Your task to perform on an android device: Open Google Maps and go to "Timeline" Image 0: 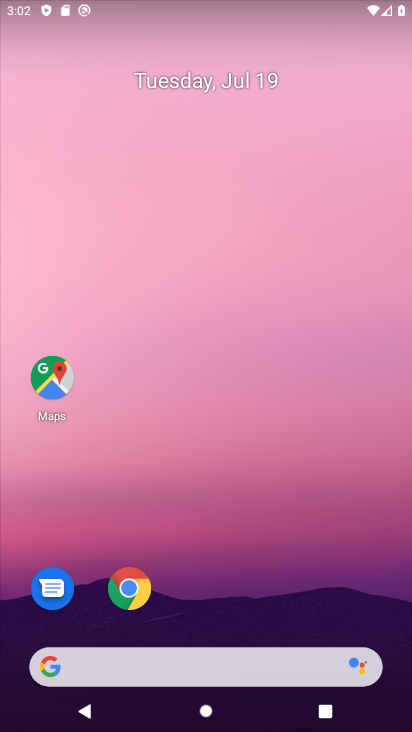
Step 0: click (66, 390)
Your task to perform on an android device: Open Google Maps and go to "Timeline" Image 1: 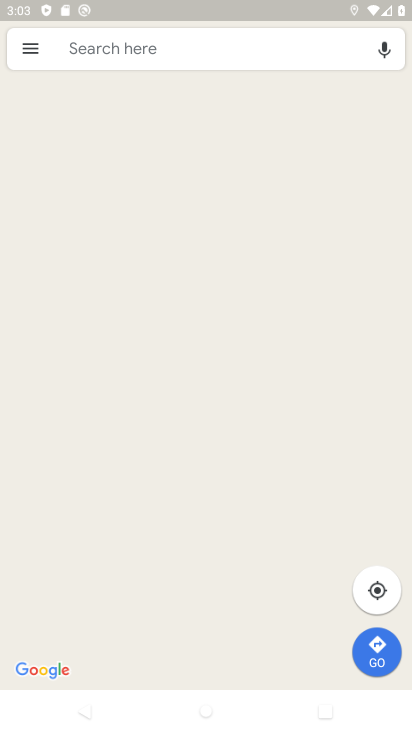
Step 1: click (22, 44)
Your task to perform on an android device: Open Google Maps and go to "Timeline" Image 2: 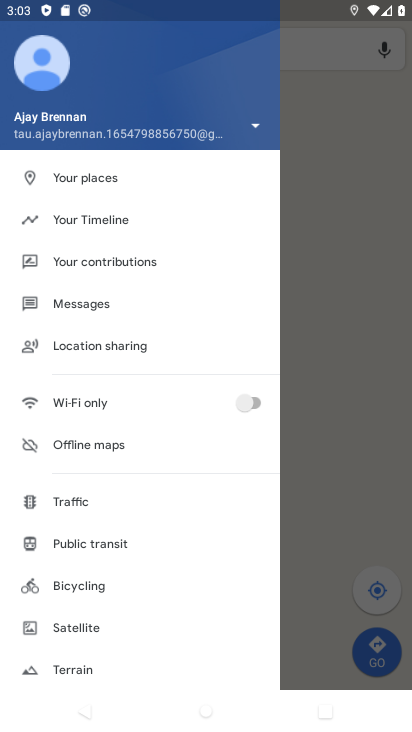
Step 2: click (117, 215)
Your task to perform on an android device: Open Google Maps and go to "Timeline" Image 3: 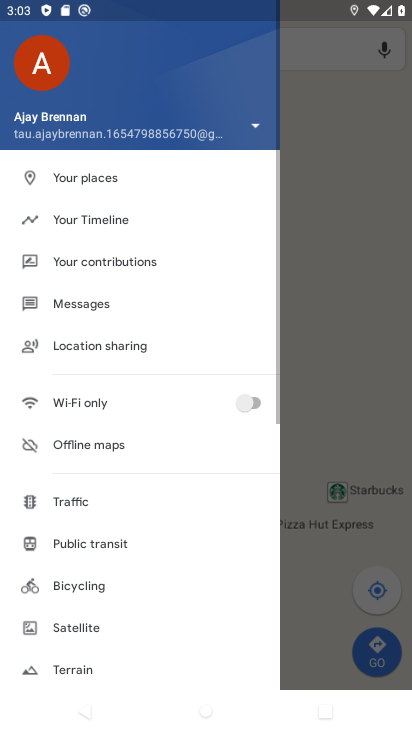
Step 3: click (79, 215)
Your task to perform on an android device: Open Google Maps and go to "Timeline" Image 4: 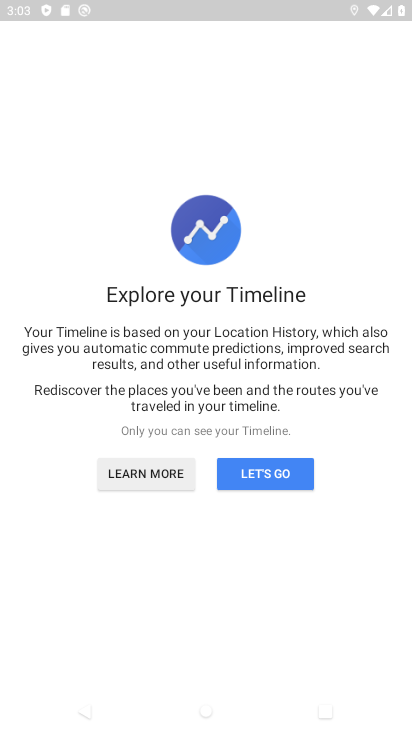
Step 4: click (292, 471)
Your task to perform on an android device: Open Google Maps and go to "Timeline" Image 5: 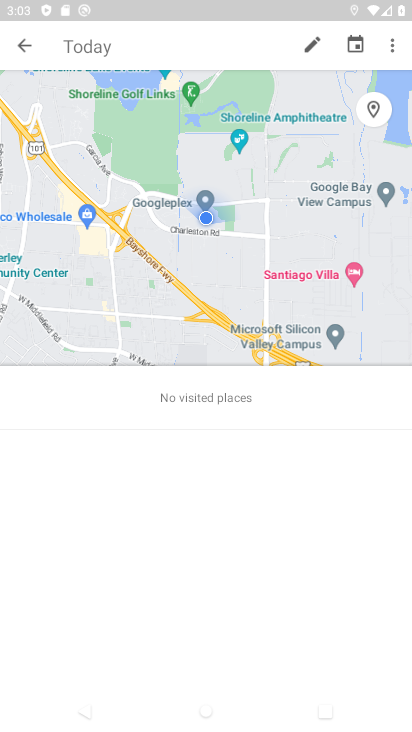
Step 5: task complete